Your task to perform on an android device: Is it going to rain this weekend? Image 0: 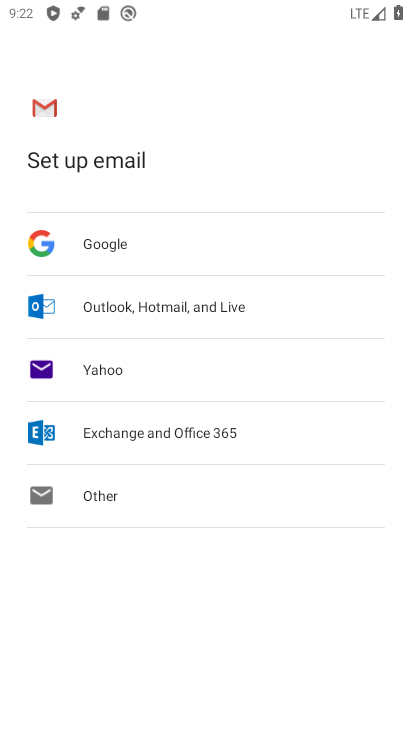
Step 0: press back button
Your task to perform on an android device: Is it going to rain this weekend? Image 1: 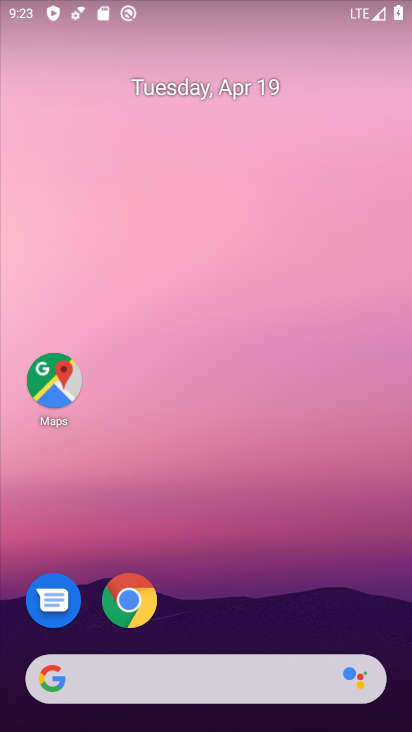
Step 1: drag from (286, 676) to (323, 709)
Your task to perform on an android device: Is it going to rain this weekend? Image 2: 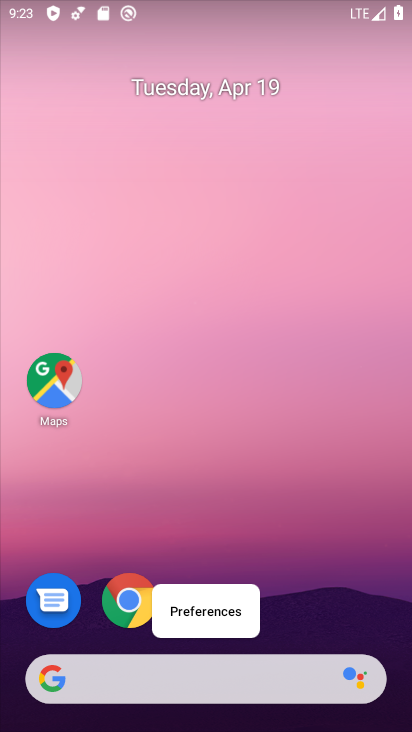
Step 2: click (124, 595)
Your task to perform on an android device: Is it going to rain this weekend? Image 3: 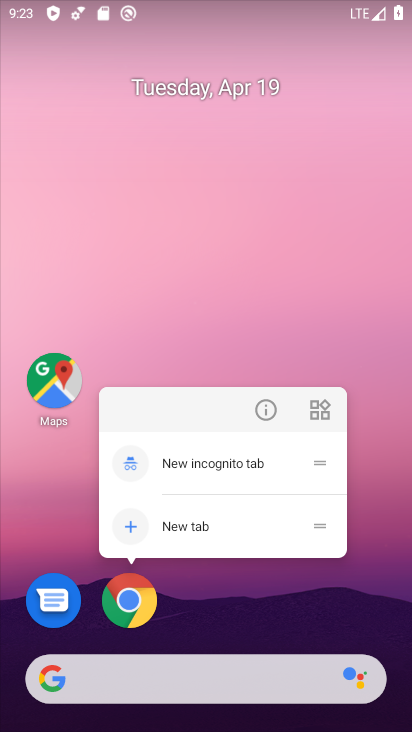
Step 3: click (124, 595)
Your task to perform on an android device: Is it going to rain this weekend? Image 4: 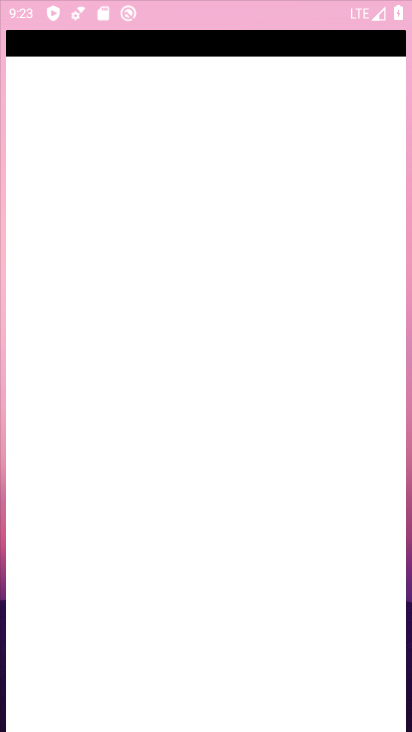
Step 4: click (124, 595)
Your task to perform on an android device: Is it going to rain this weekend? Image 5: 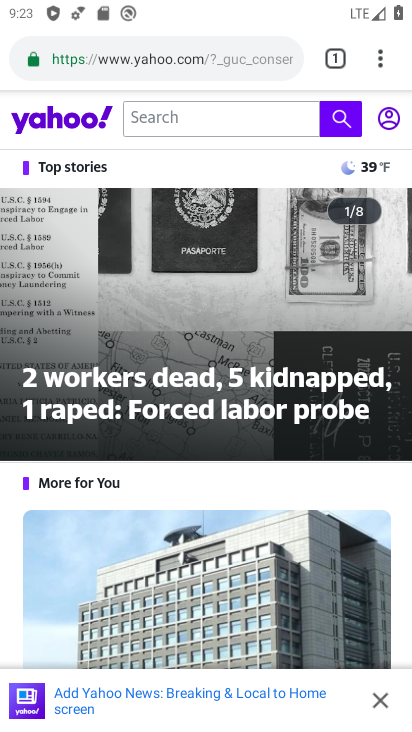
Step 5: click (186, 53)
Your task to perform on an android device: Is it going to rain this weekend? Image 6: 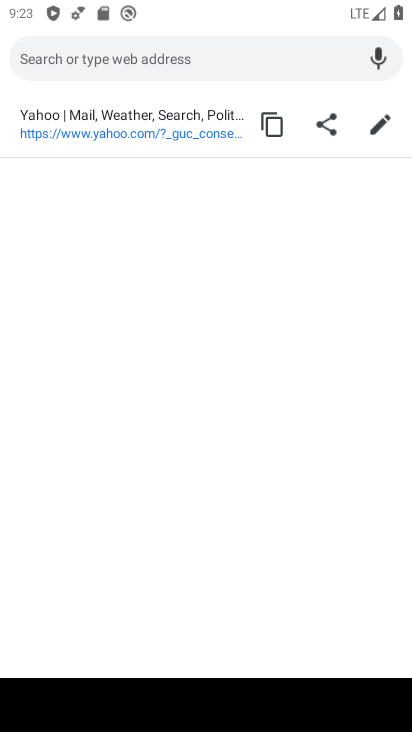
Step 6: type "Is it going to rain this weekend?"
Your task to perform on an android device: Is it going to rain this weekend? Image 7: 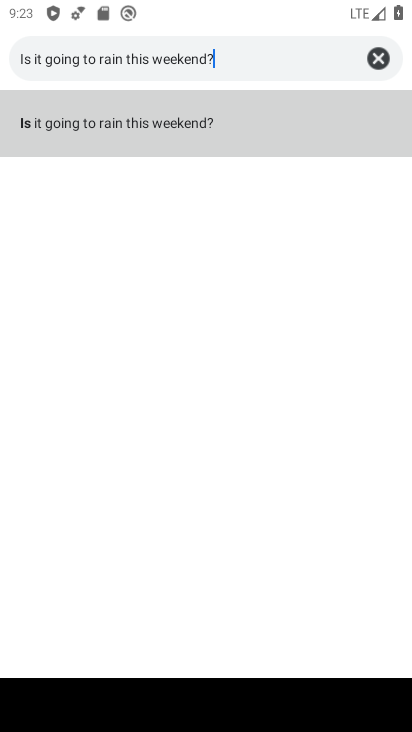
Step 7: click (175, 122)
Your task to perform on an android device: Is it going to rain this weekend? Image 8: 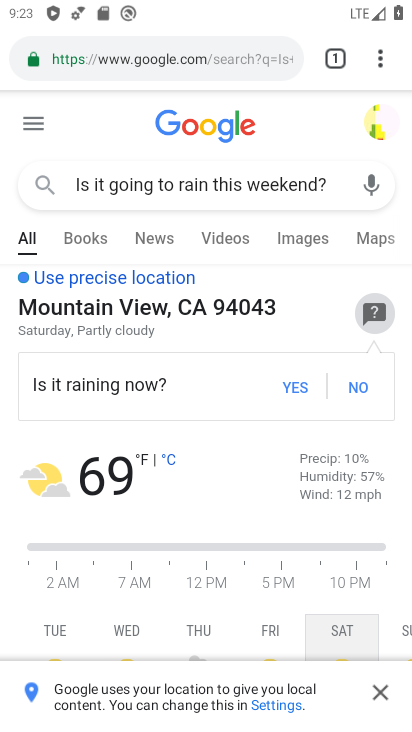
Step 8: task complete